Your task to perform on an android device: make emails show in primary in the gmail app Image 0: 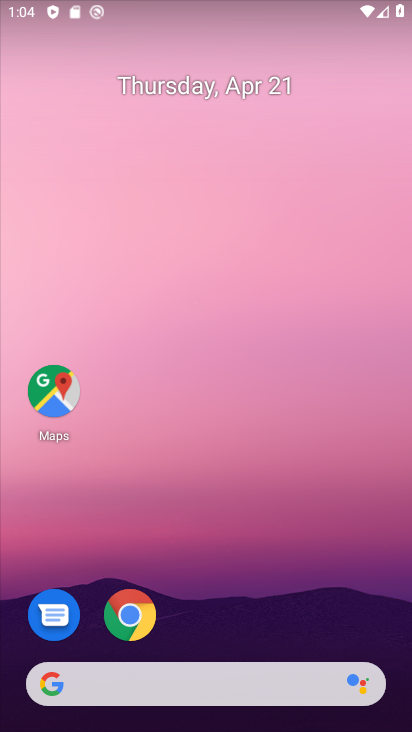
Step 0: drag from (234, 686) to (305, 188)
Your task to perform on an android device: make emails show in primary in the gmail app Image 1: 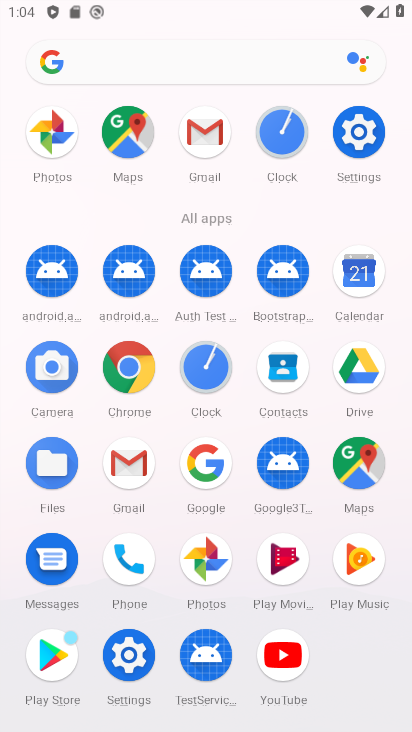
Step 1: click (211, 134)
Your task to perform on an android device: make emails show in primary in the gmail app Image 2: 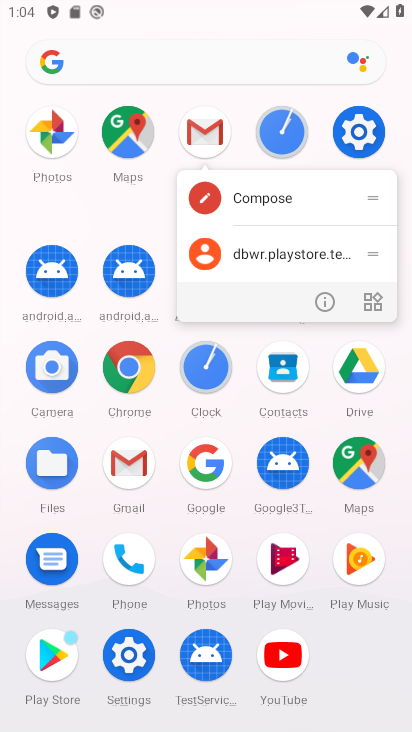
Step 2: click (207, 131)
Your task to perform on an android device: make emails show in primary in the gmail app Image 3: 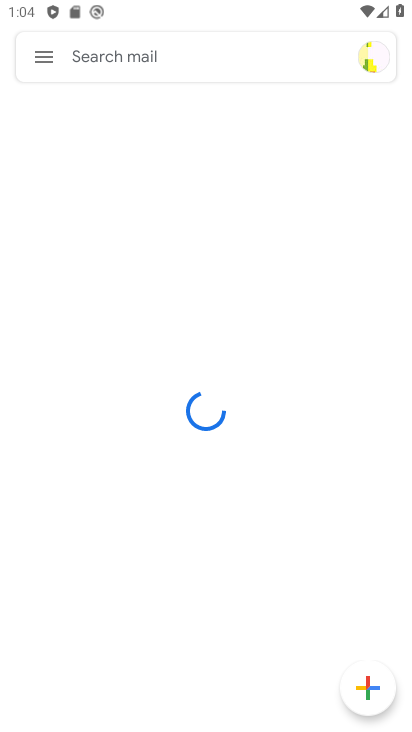
Step 3: click (207, 131)
Your task to perform on an android device: make emails show in primary in the gmail app Image 4: 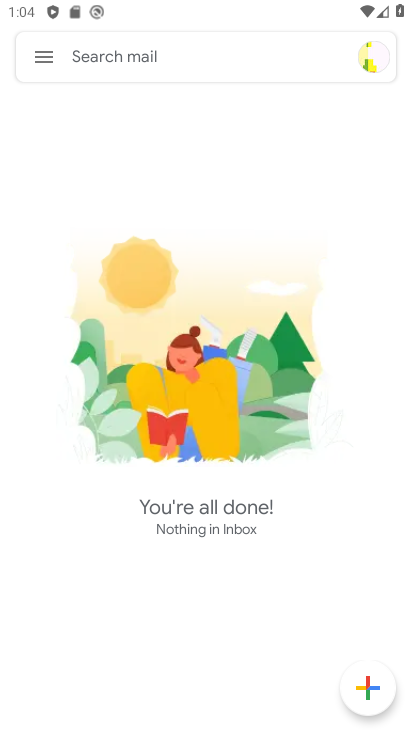
Step 4: click (49, 58)
Your task to perform on an android device: make emails show in primary in the gmail app Image 5: 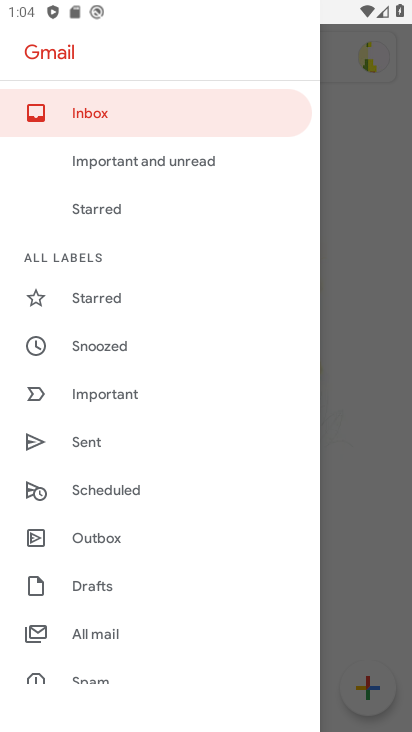
Step 5: drag from (113, 628) to (186, 390)
Your task to perform on an android device: make emails show in primary in the gmail app Image 6: 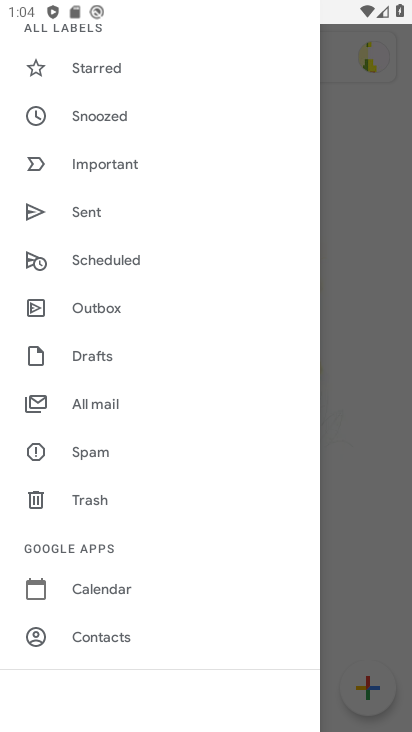
Step 6: drag from (101, 598) to (159, 290)
Your task to perform on an android device: make emails show in primary in the gmail app Image 7: 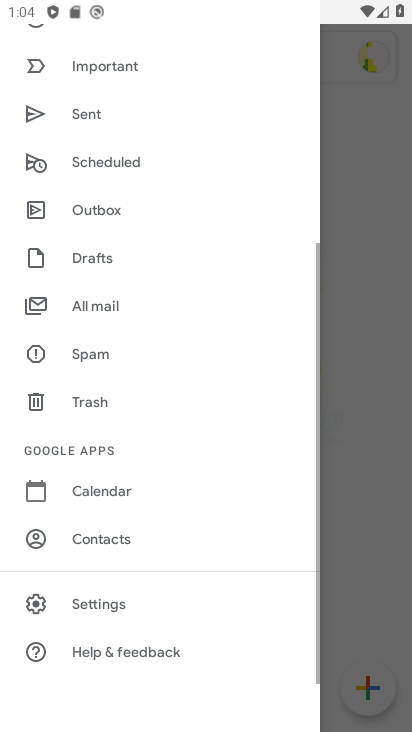
Step 7: click (113, 610)
Your task to perform on an android device: make emails show in primary in the gmail app Image 8: 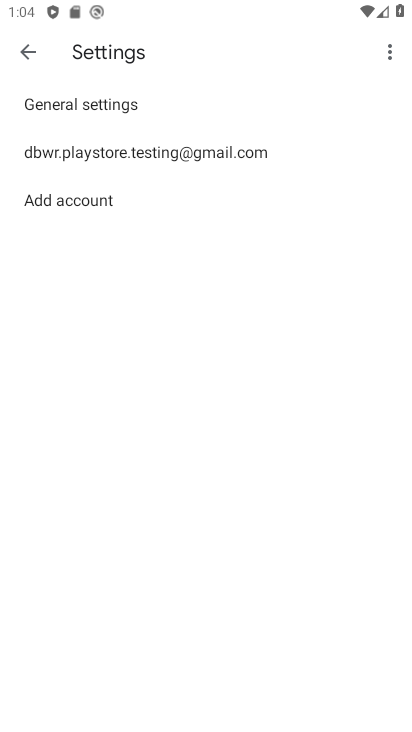
Step 8: click (142, 160)
Your task to perform on an android device: make emails show in primary in the gmail app Image 9: 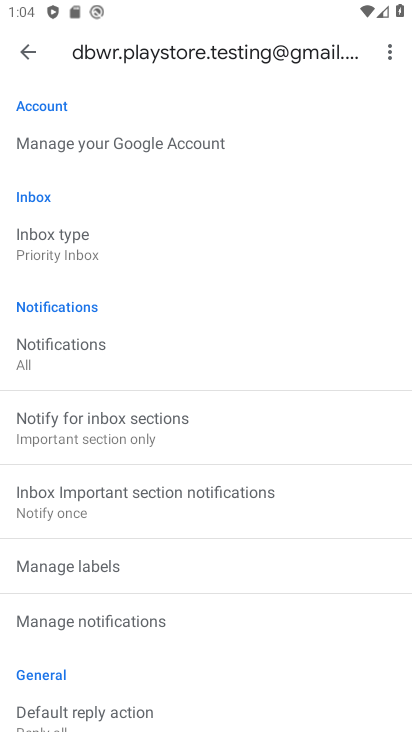
Step 9: task complete